Your task to perform on an android device: Search for the best 100% cotton t-shirts Image 0: 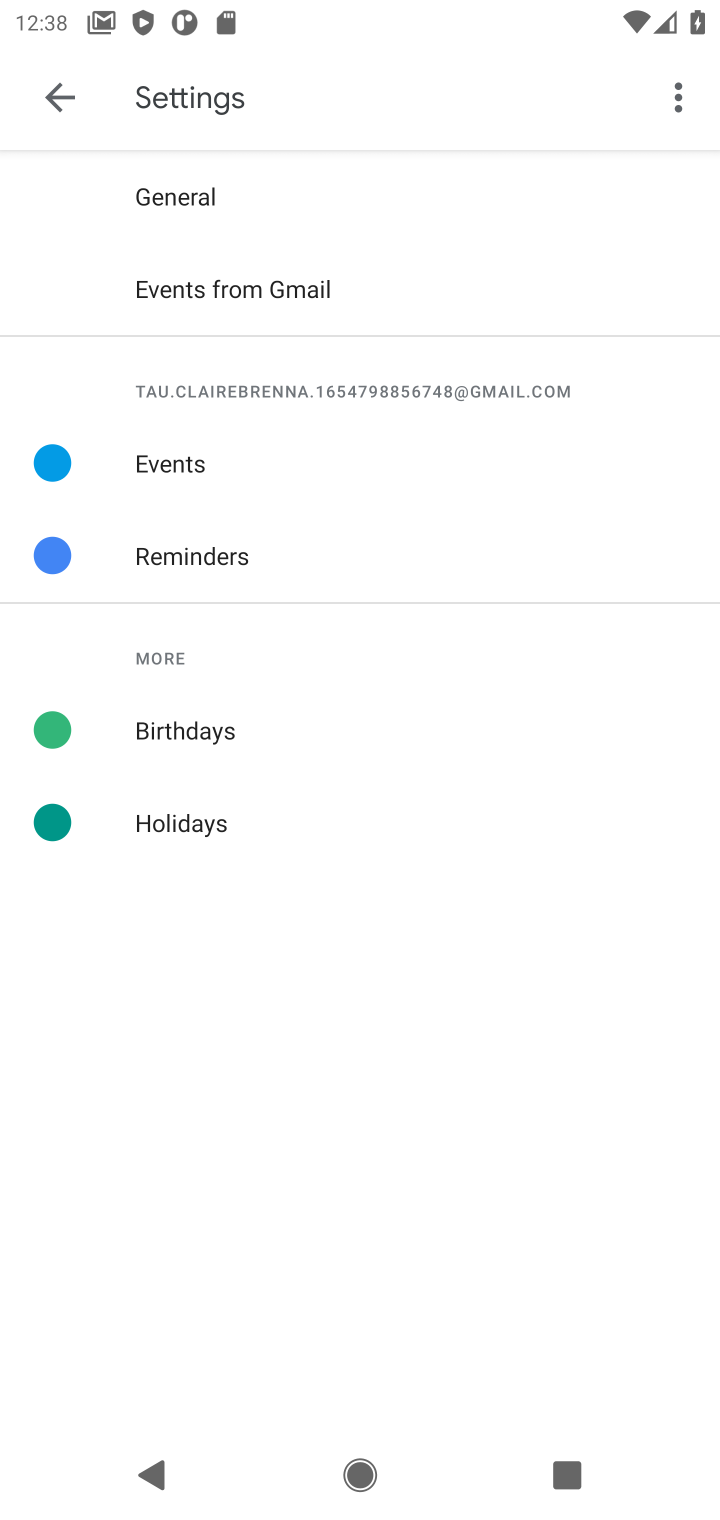
Step 0: press home button
Your task to perform on an android device: Search for the best 100% cotton t-shirts Image 1: 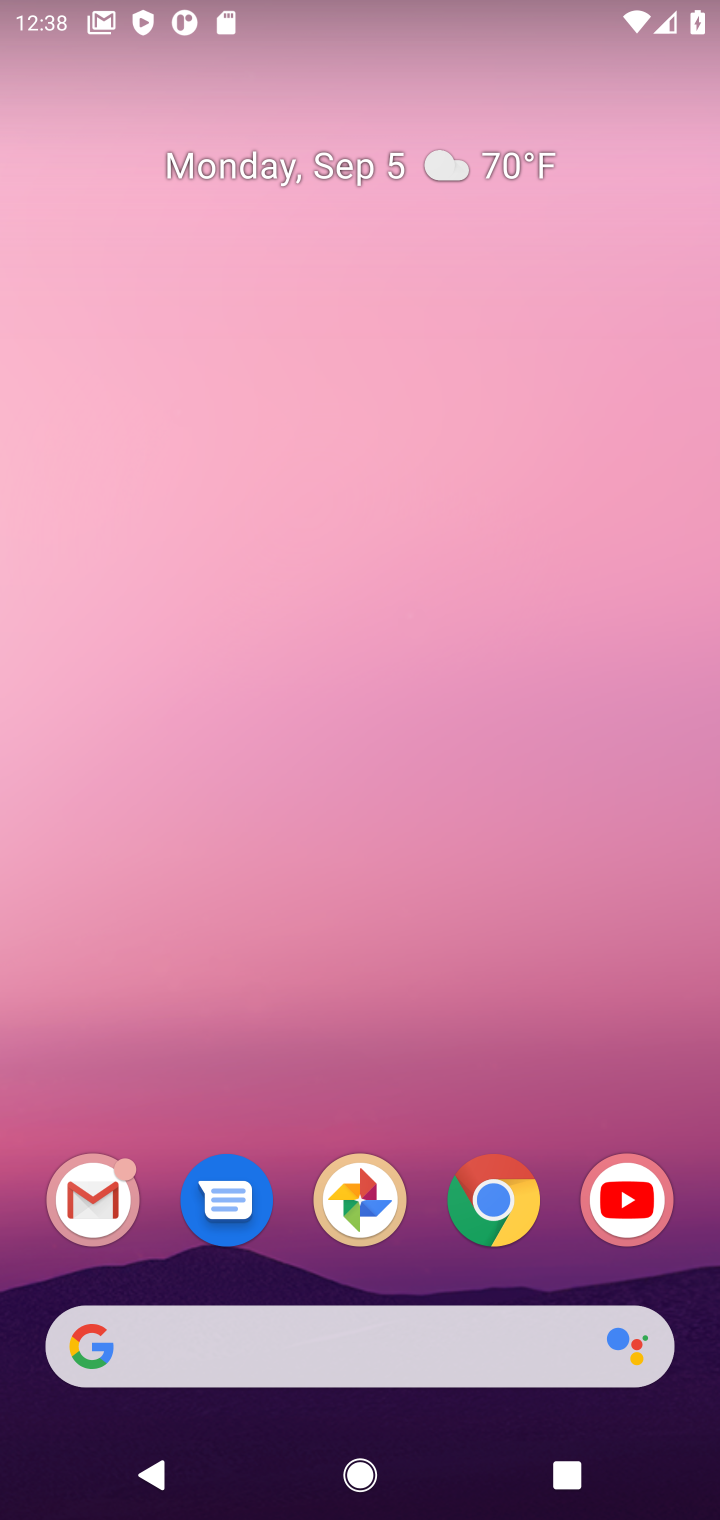
Step 1: click (515, 1222)
Your task to perform on an android device: Search for the best 100% cotton t-shirts Image 2: 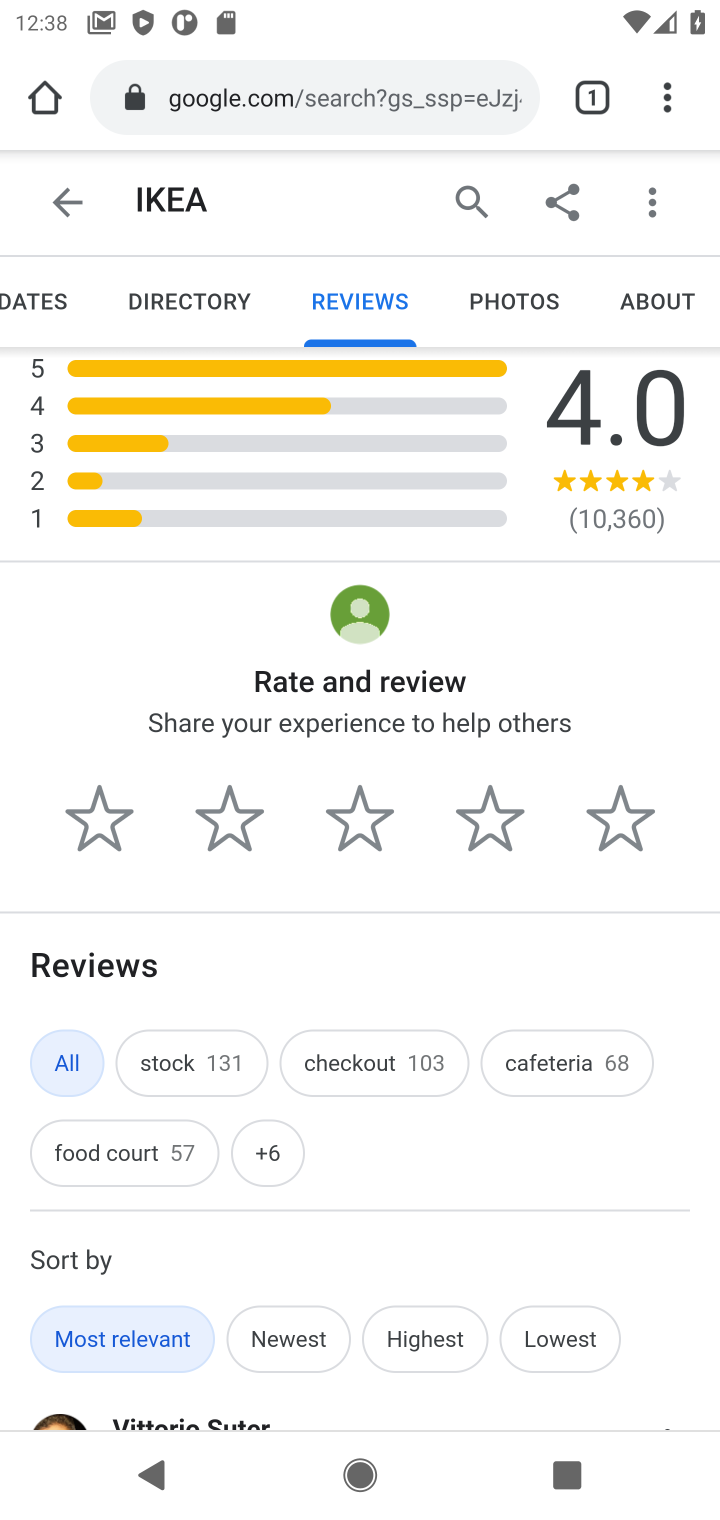
Step 2: click (428, 96)
Your task to perform on an android device: Search for the best 100% cotton t-shirts Image 3: 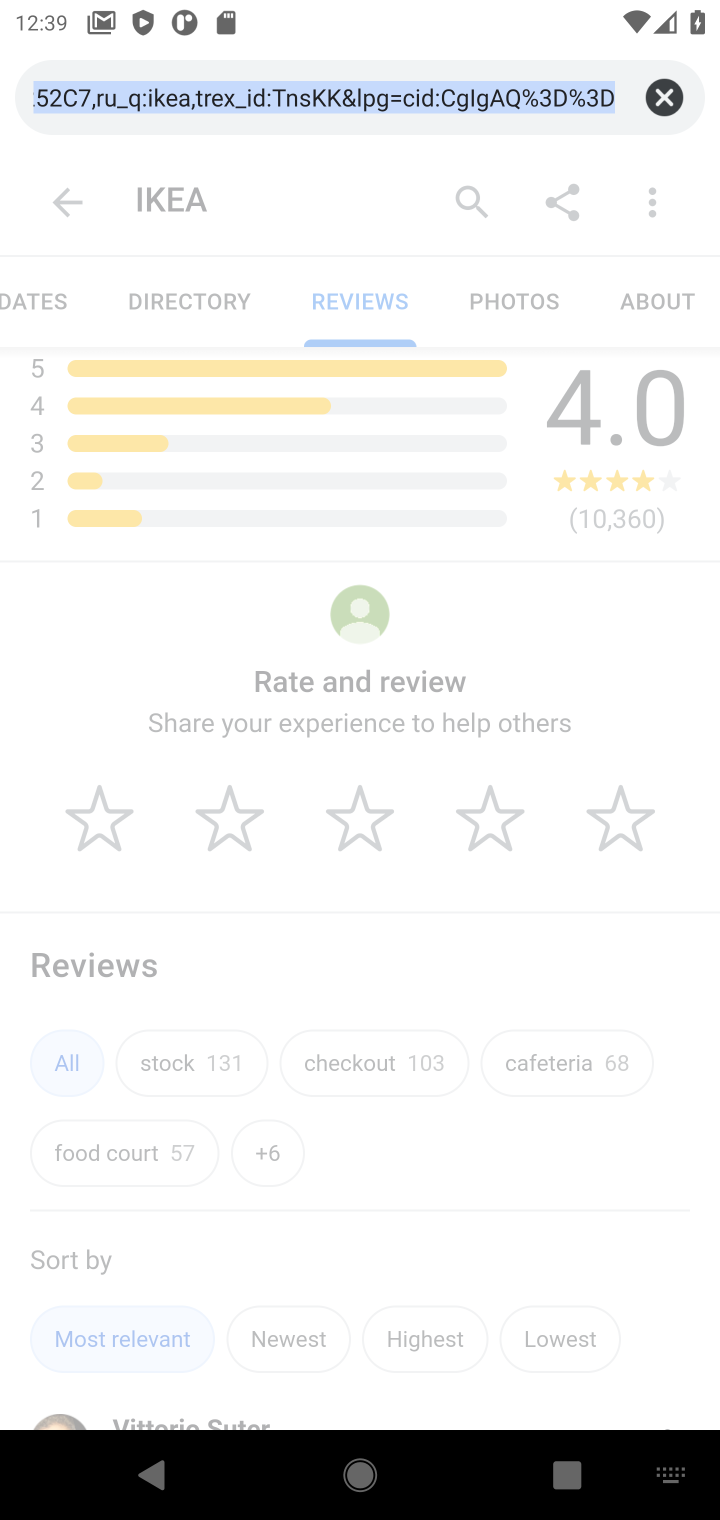
Step 3: type "best 100% cotton t-shirts"
Your task to perform on an android device: Search for the best 100% cotton t-shirts Image 4: 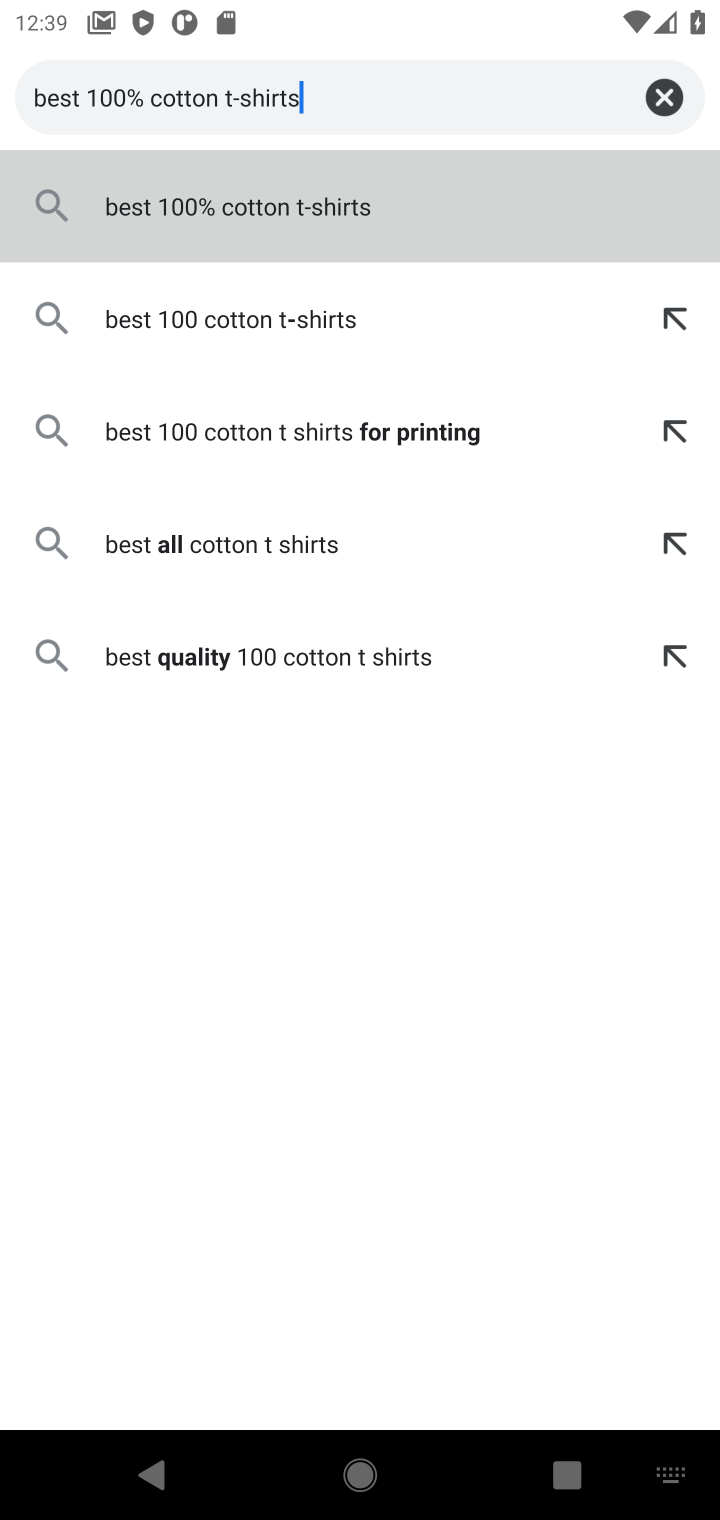
Step 4: click (272, 233)
Your task to perform on an android device: Search for the best 100% cotton t-shirts Image 5: 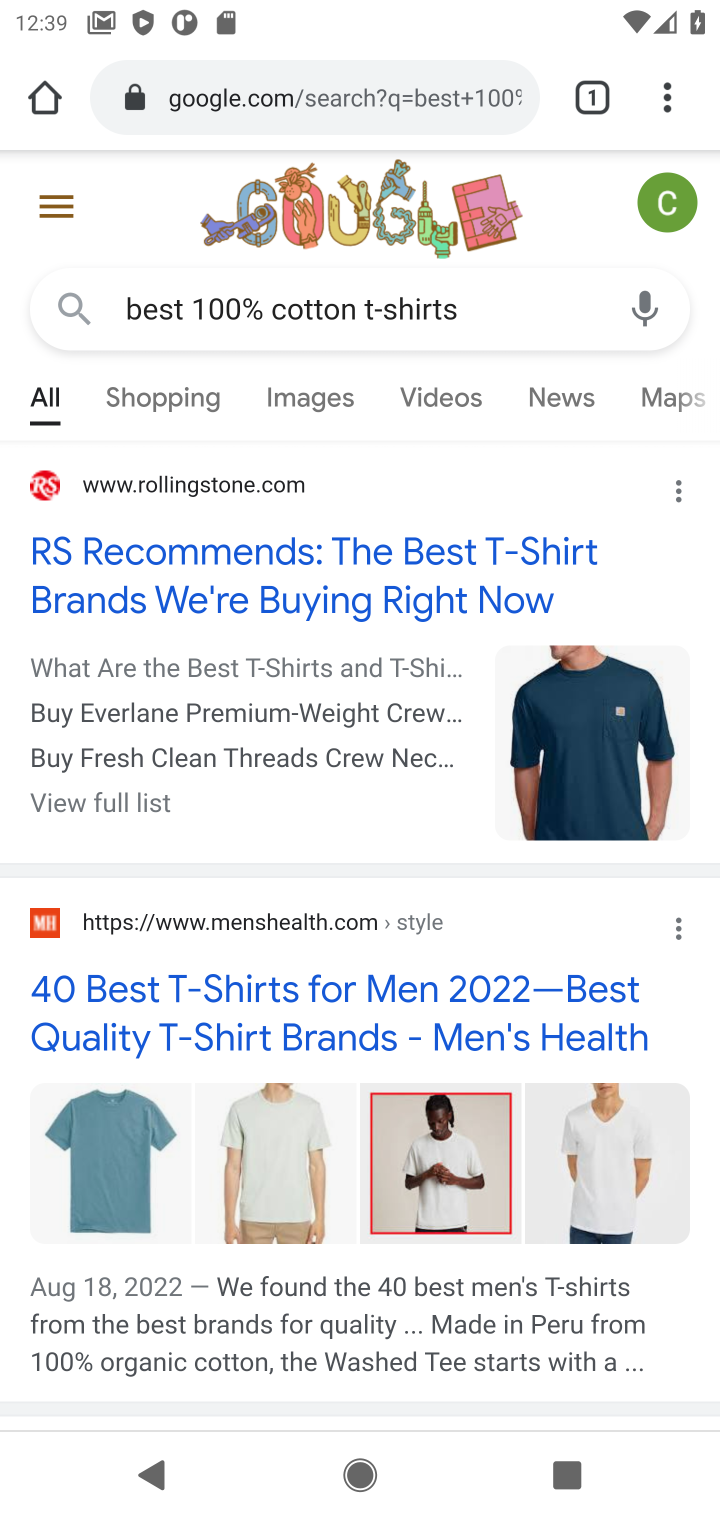
Step 5: task complete